Your task to perform on an android device: set default search engine in the chrome app Image 0: 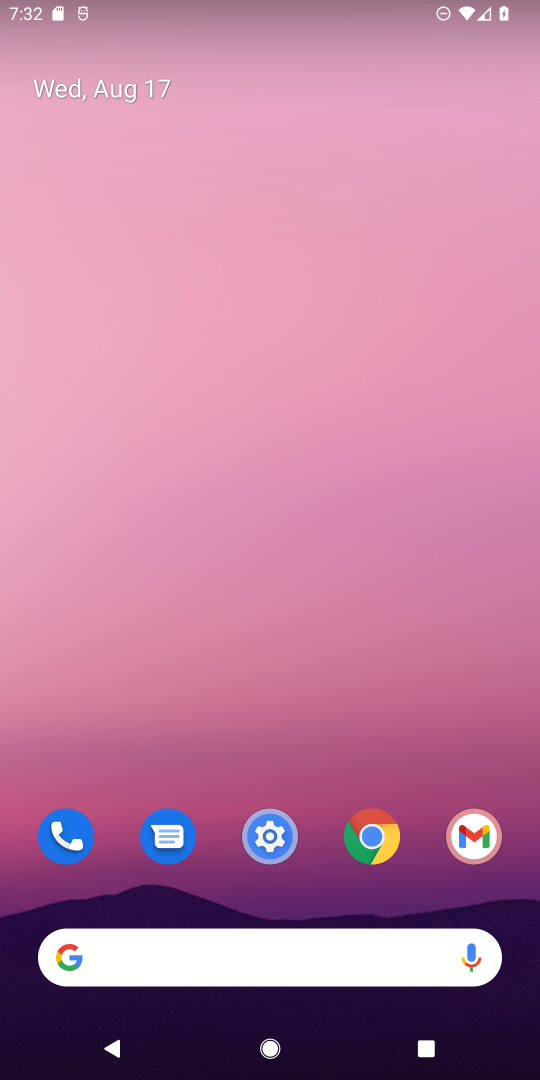
Step 0: drag from (230, 733) to (304, 234)
Your task to perform on an android device: set default search engine in the chrome app Image 1: 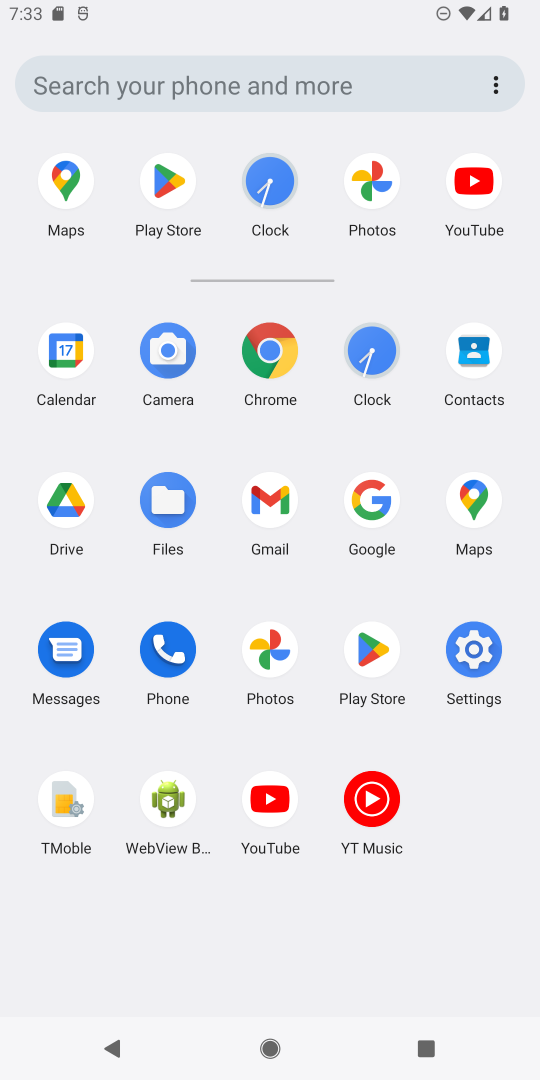
Step 1: click (263, 337)
Your task to perform on an android device: set default search engine in the chrome app Image 2: 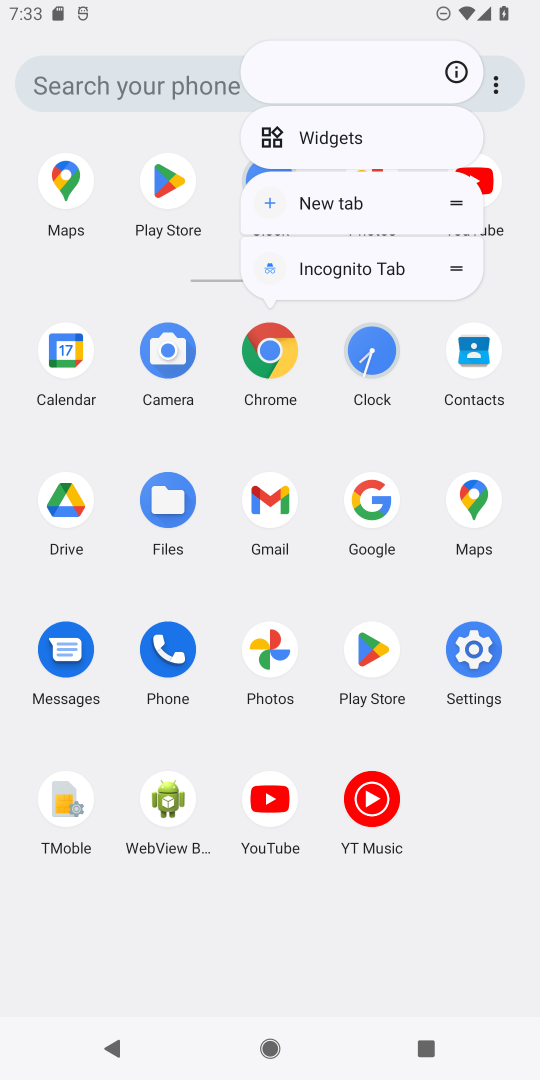
Step 2: click (271, 340)
Your task to perform on an android device: set default search engine in the chrome app Image 3: 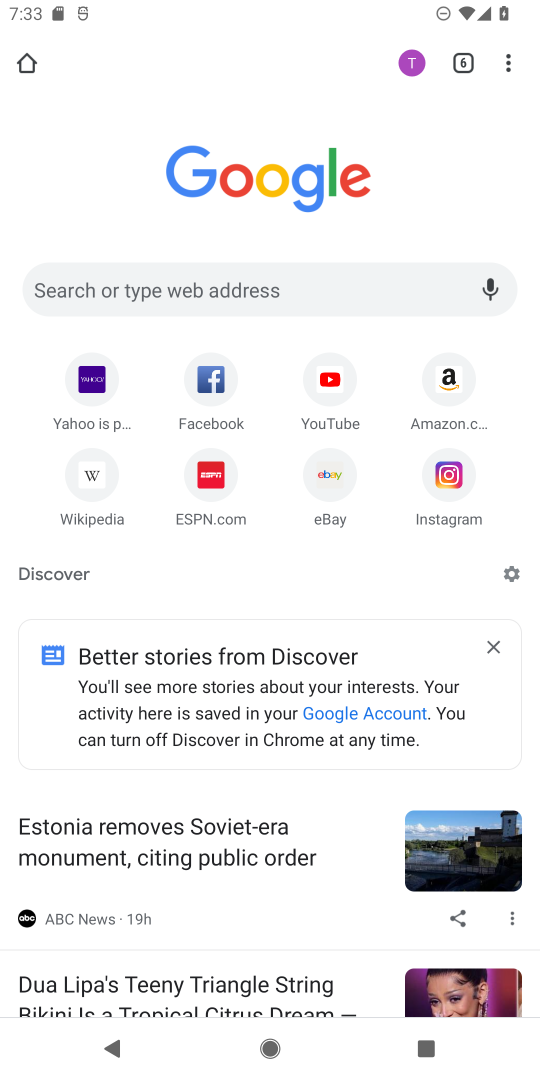
Step 3: click (514, 66)
Your task to perform on an android device: set default search engine in the chrome app Image 4: 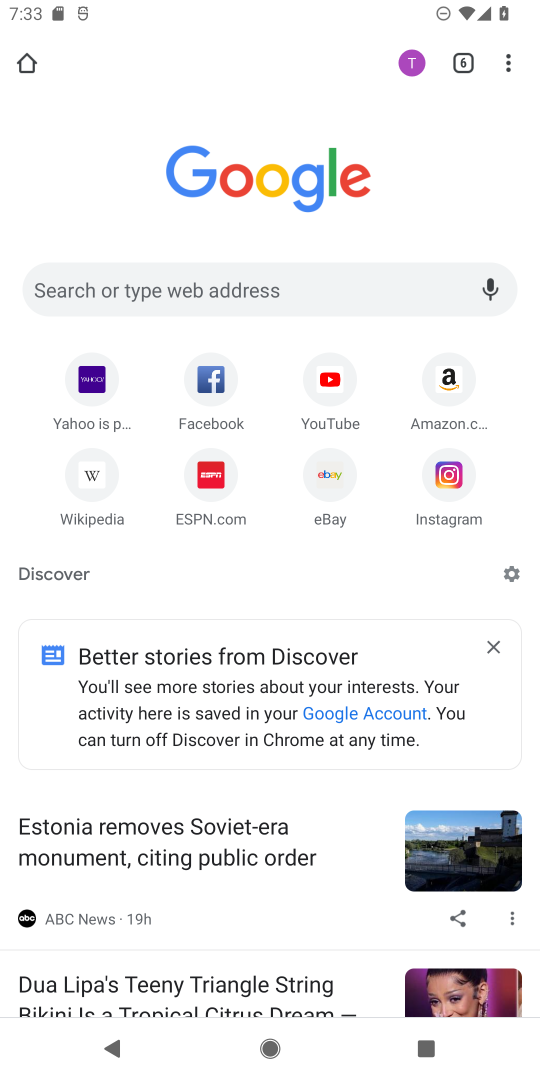
Step 4: click (524, 45)
Your task to perform on an android device: set default search engine in the chrome app Image 5: 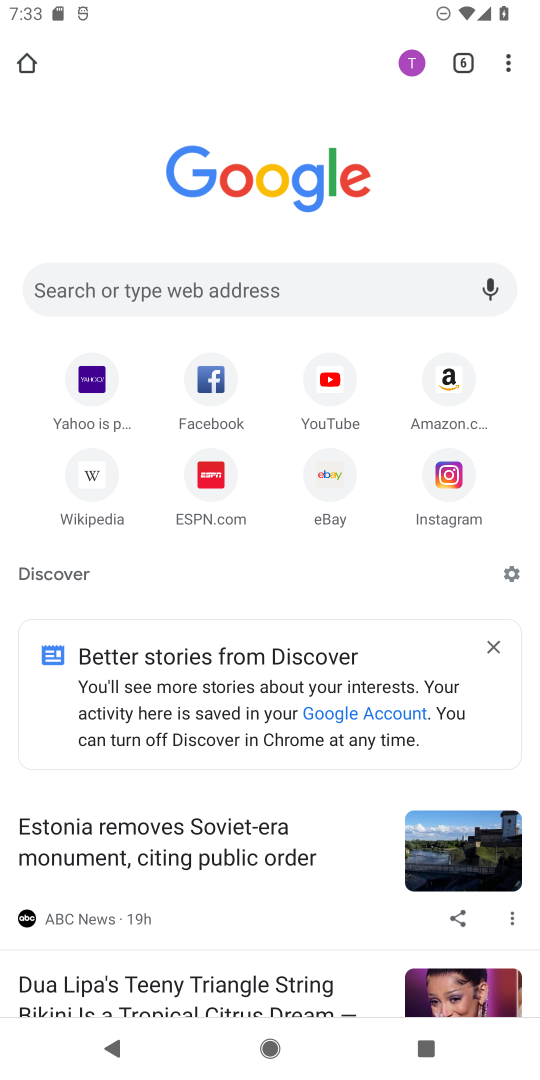
Step 5: click (524, 63)
Your task to perform on an android device: set default search engine in the chrome app Image 6: 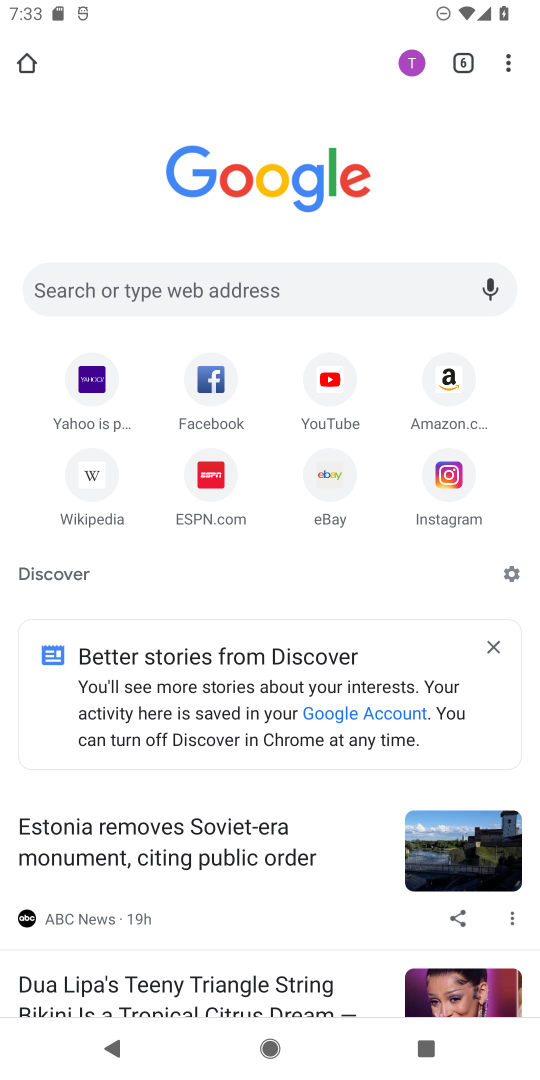
Step 6: click (524, 63)
Your task to perform on an android device: set default search engine in the chrome app Image 7: 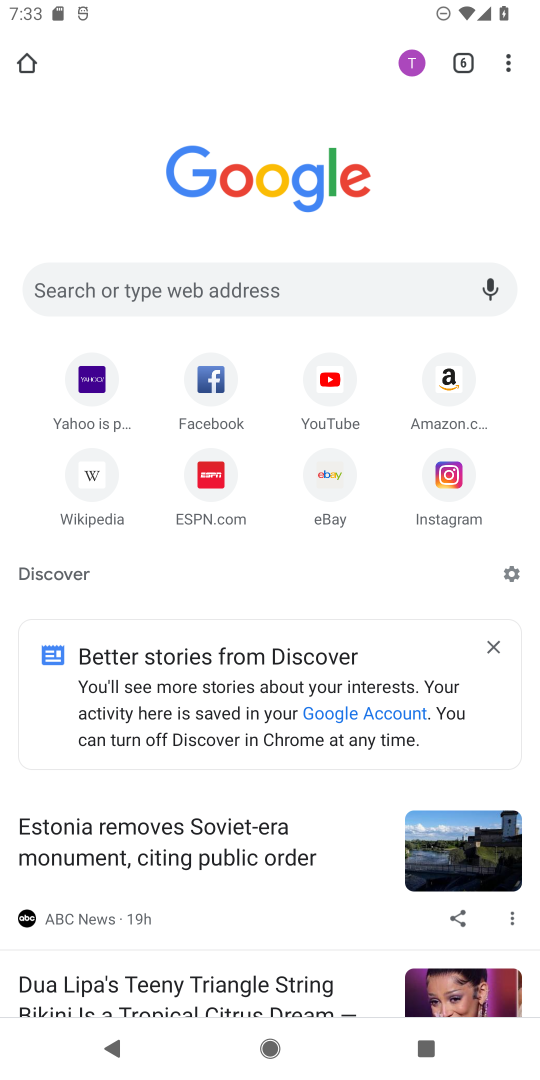
Step 7: click (532, 58)
Your task to perform on an android device: set default search engine in the chrome app Image 8: 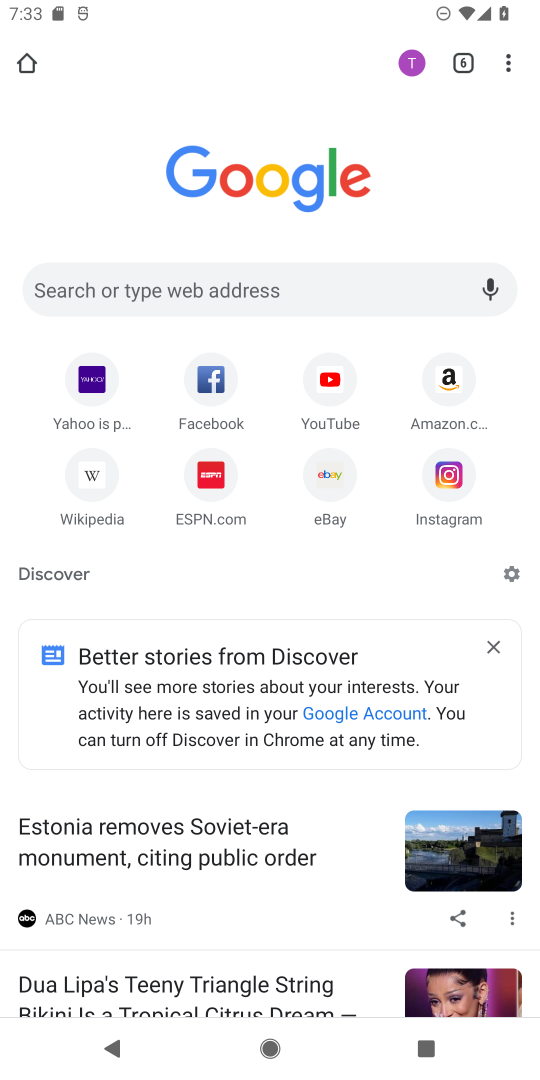
Step 8: click (502, 63)
Your task to perform on an android device: set default search engine in the chrome app Image 9: 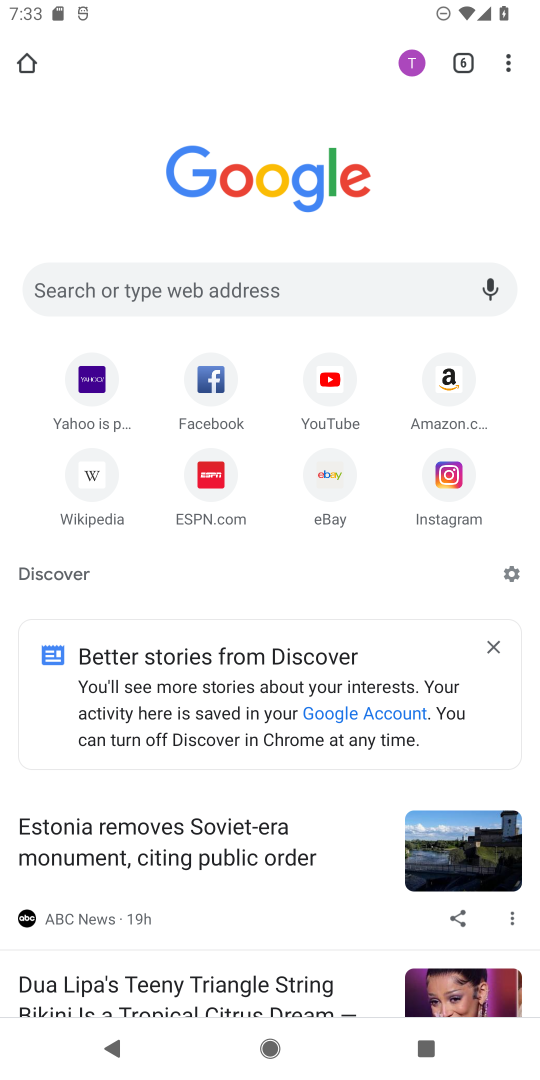
Step 9: click (497, 55)
Your task to perform on an android device: set default search engine in the chrome app Image 10: 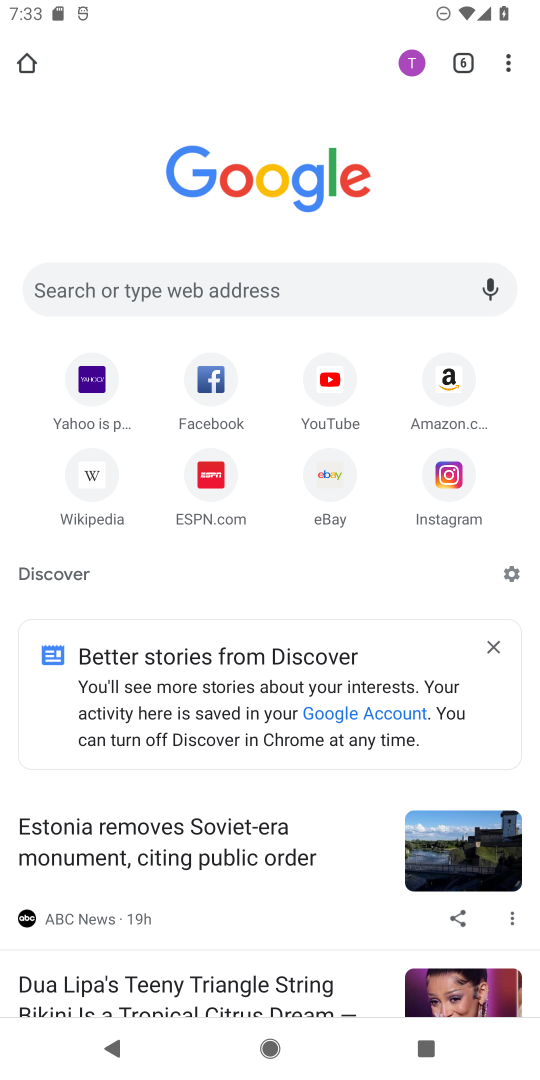
Step 10: click (497, 67)
Your task to perform on an android device: set default search engine in the chrome app Image 11: 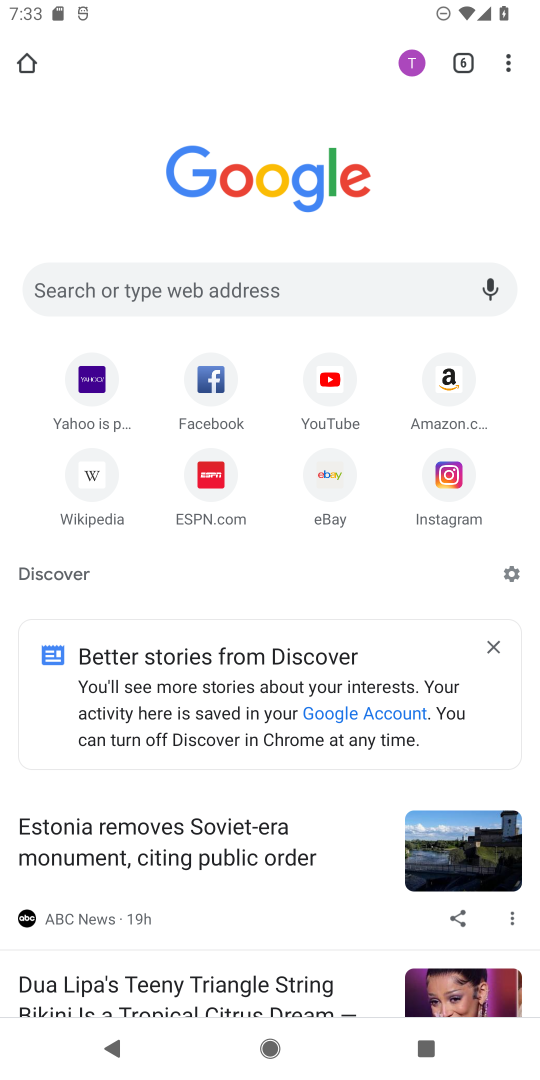
Step 11: click (527, 67)
Your task to perform on an android device: set default search engine in the chrome app Image 12: 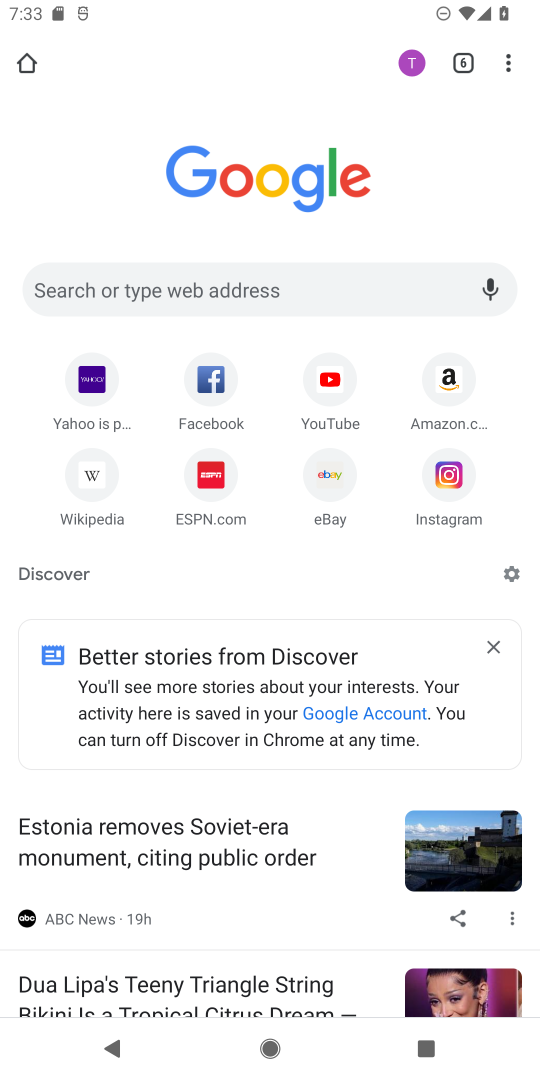
Step 12: click (527, 67)
Your task to perform on an android device: set default search engine in the chrome app Image 13: 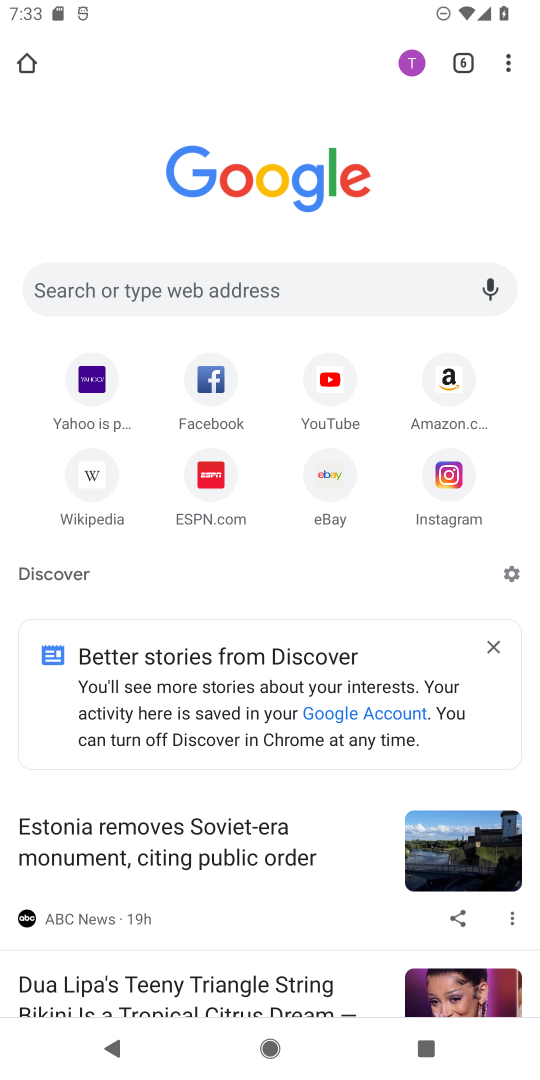
Step 13: click (527, 67)
Your task to perform on an android device: set default search engine in the chrome app Image 14: 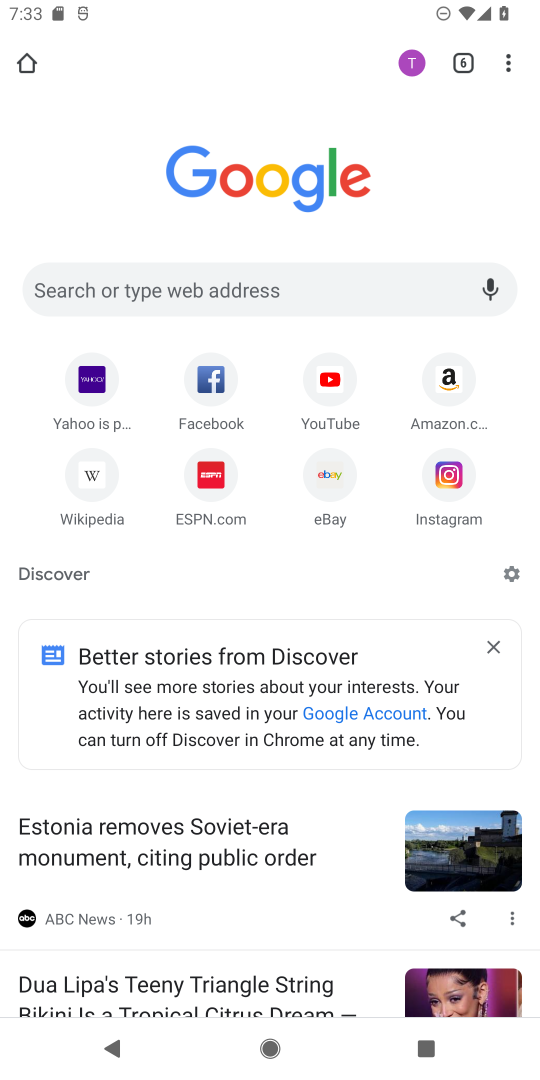
Step 14: click (527, 67)
Your task to perform on an android device: set default search engine in the chrome app Image 15: 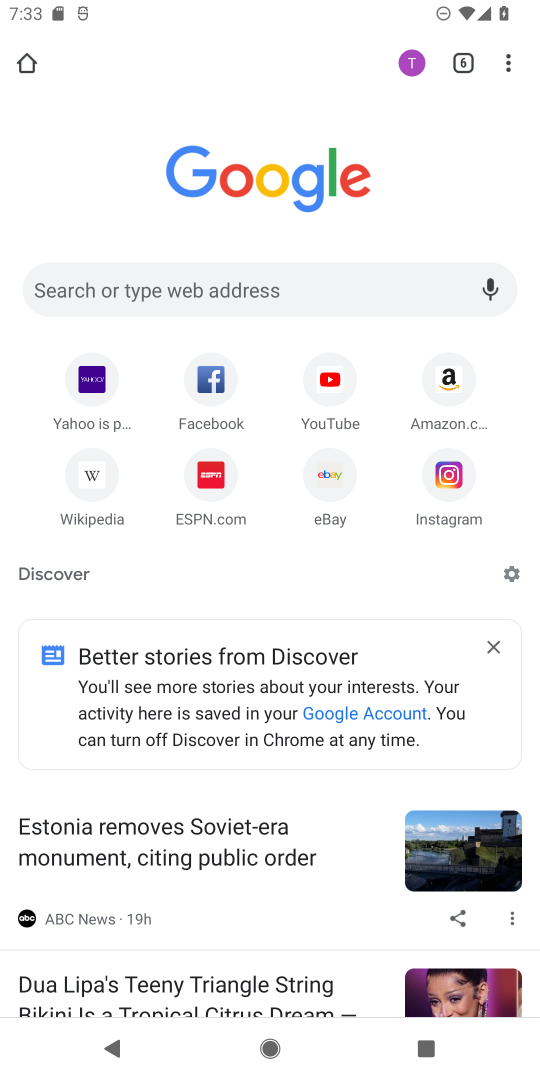
Step 15: click (525, 64)
Your task to perform on an android device: set default search engine in the chrome app Image 16: 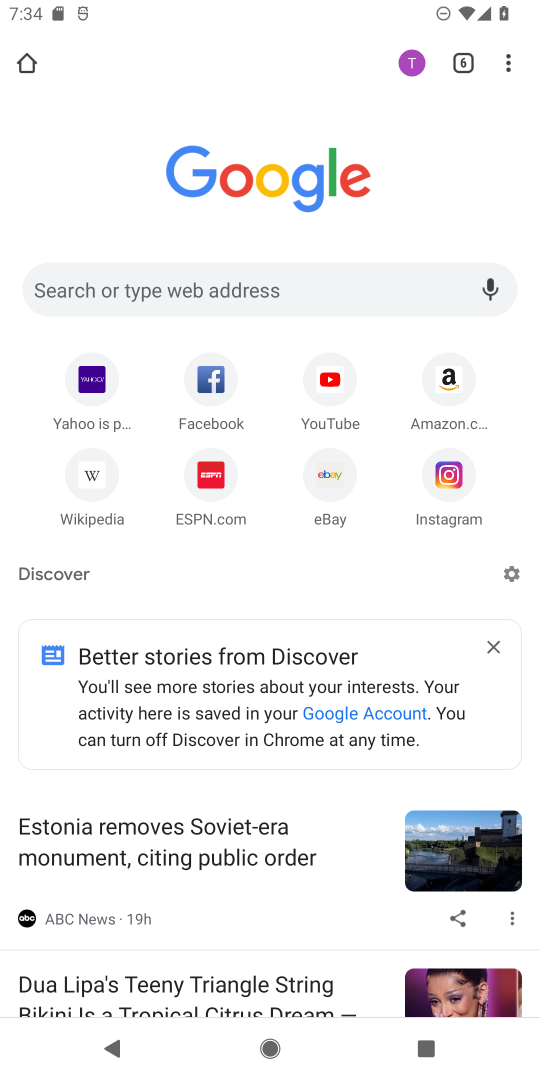
Step 16: click (511, 64)
Your task to perform on an android device: set default search engine in the chrome app Image 17: 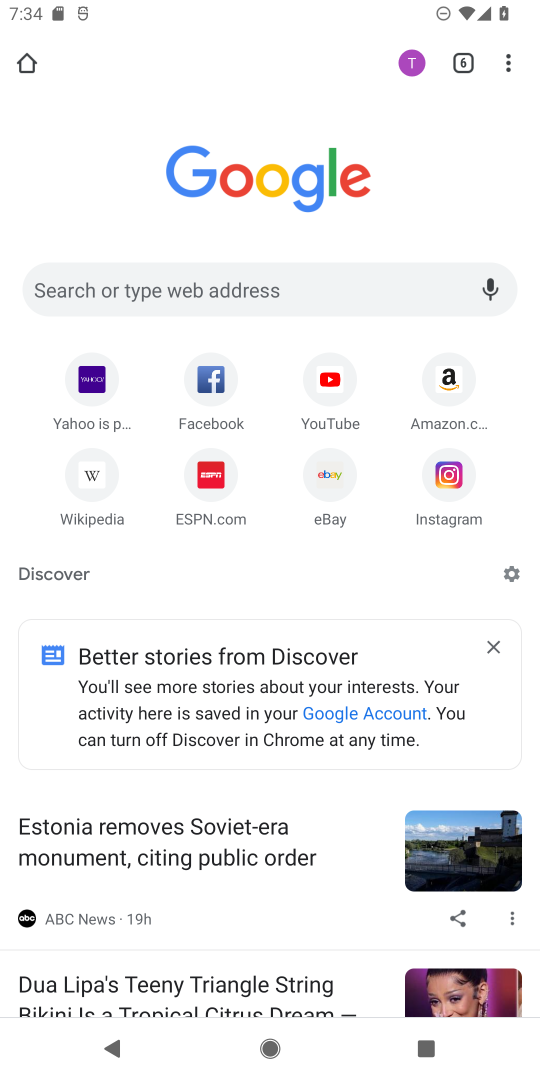
Step 17: click (516, 67)
Your task to perform on an android device: set default search engine in the chrome app Image 18: 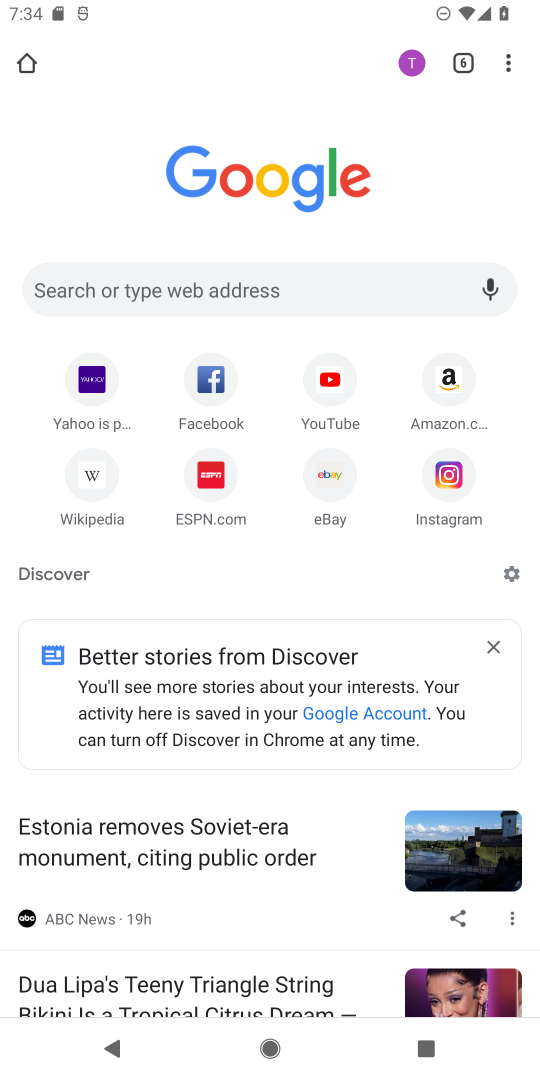
Step 18: click (516, 67)
Your task to perform on an android device: set default search engine in the chrome app Image 19: 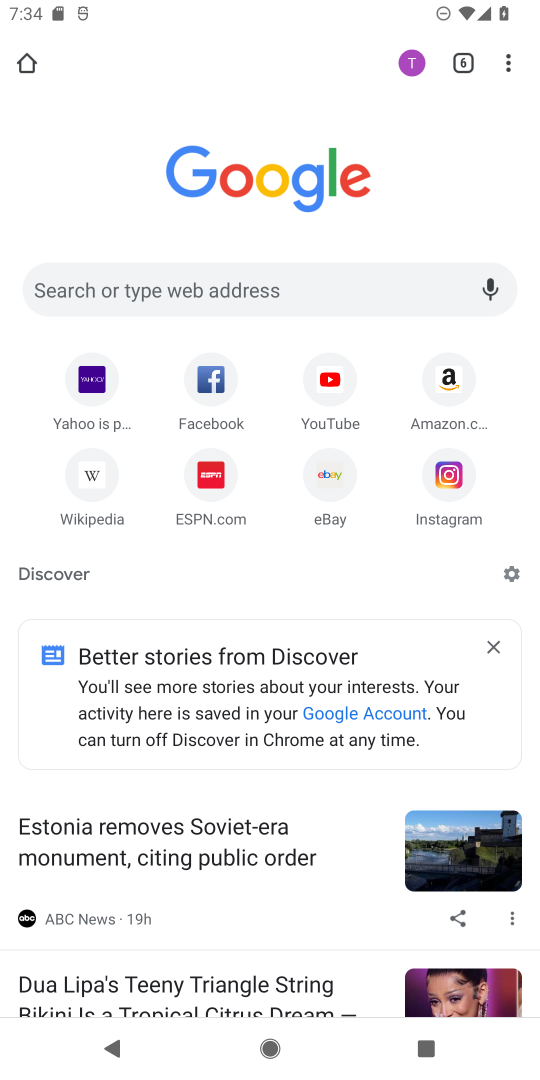
Step 19: click (516, 67)
Your task to perform on an android device: set default search engine in the chrome app Image 20: 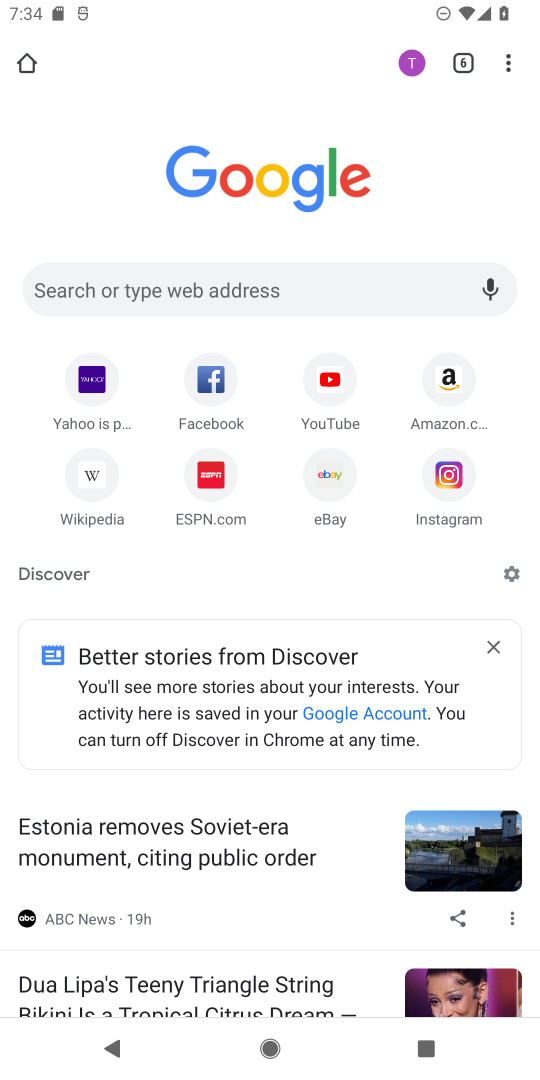
Step 20: click (516, 67)
Your task to perform on an android device: set default search engine in the chrome app Image 21: 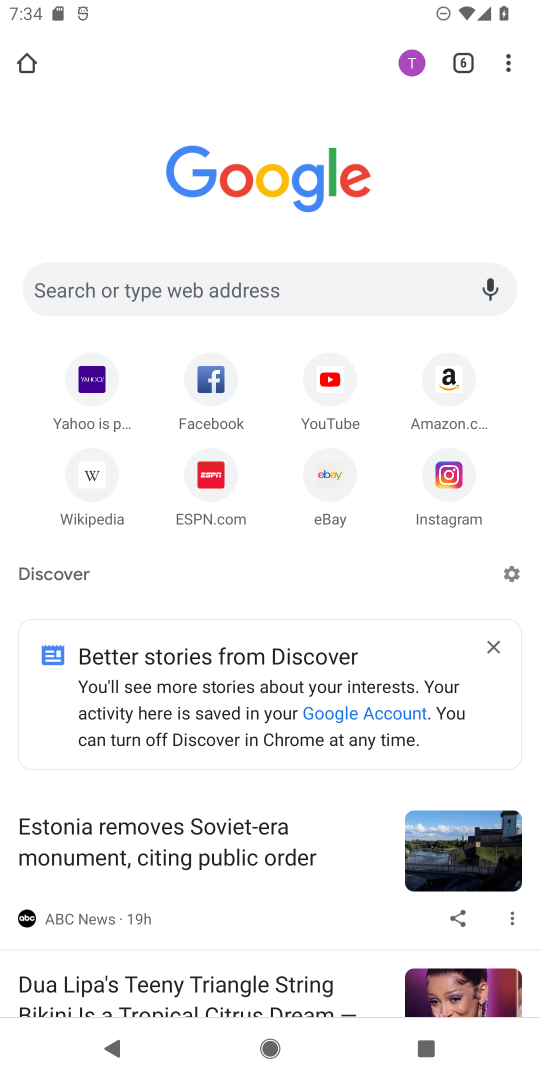
Step 21: click (516, 67)
Your task to perform on an android device: set default search engine in the chrome app Image 22: 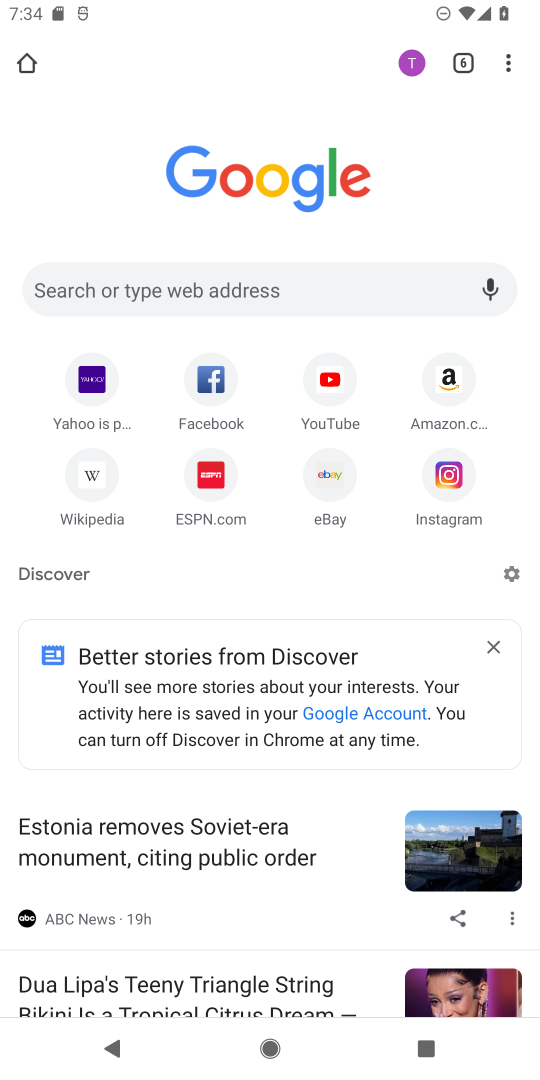
Step 22: click (524, 48)
Your task to perform on an android device: set default search engine in the chrome app Image 23: 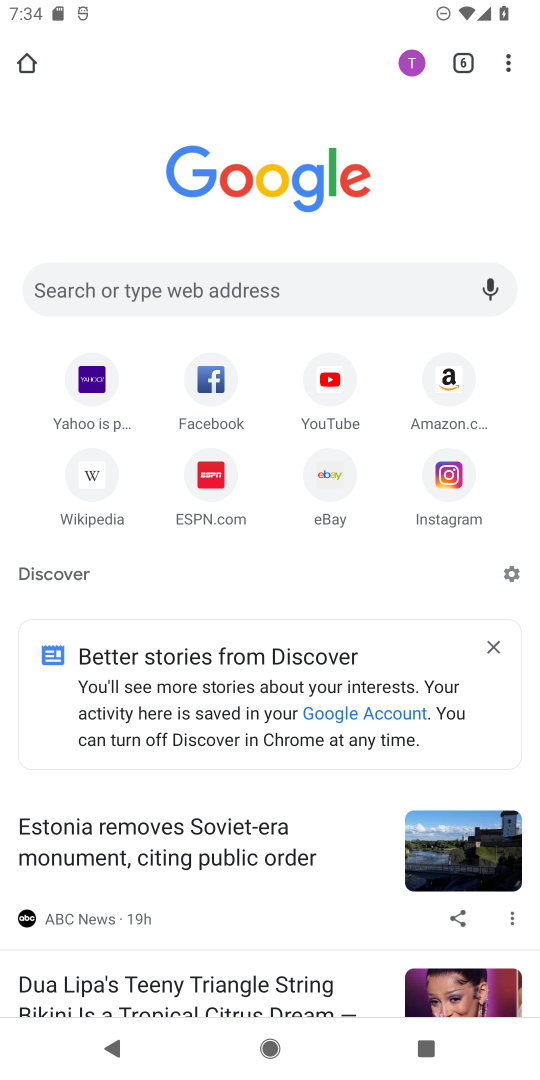
Step 23: click (524, 56)
Your task to perform on an android device: set default search engine in the chrome app Image 24: 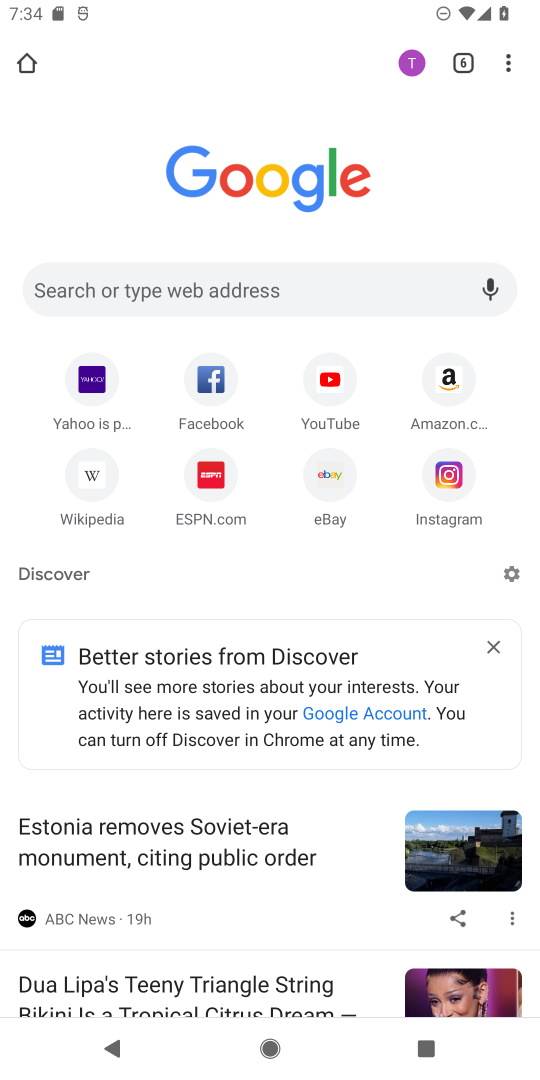
Step 24: click (524, 56)
Your task to perform on an android device: set default search engine in the chrome app Image 25: 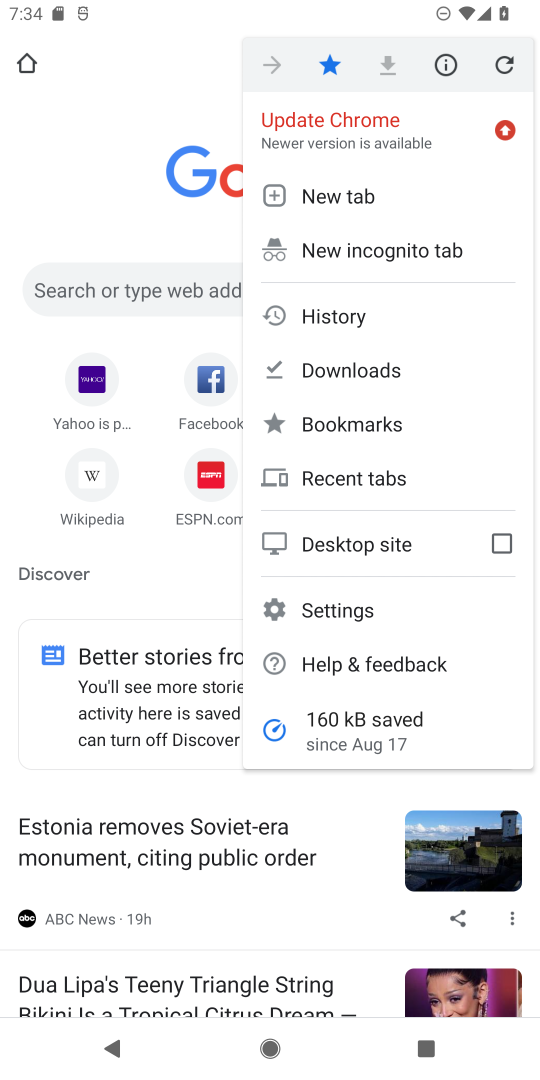
Step 25: click (352, 602)
Your task to perform on an android device: set default search engine in the chrome app Image 26: 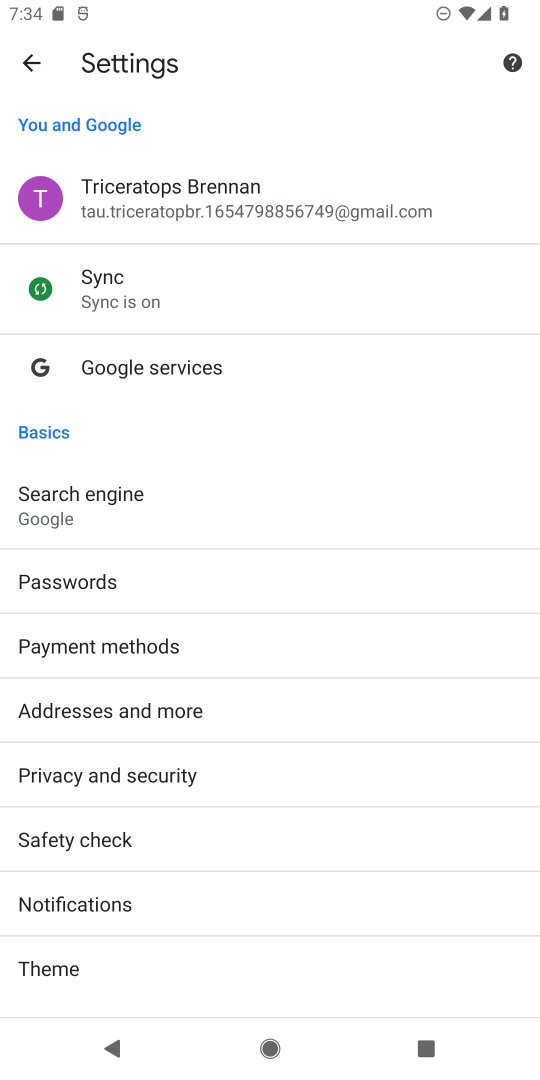
Step 26: click (94, 504)
Your task to perform on an android device: set default search engine in the chrome app Image 27: 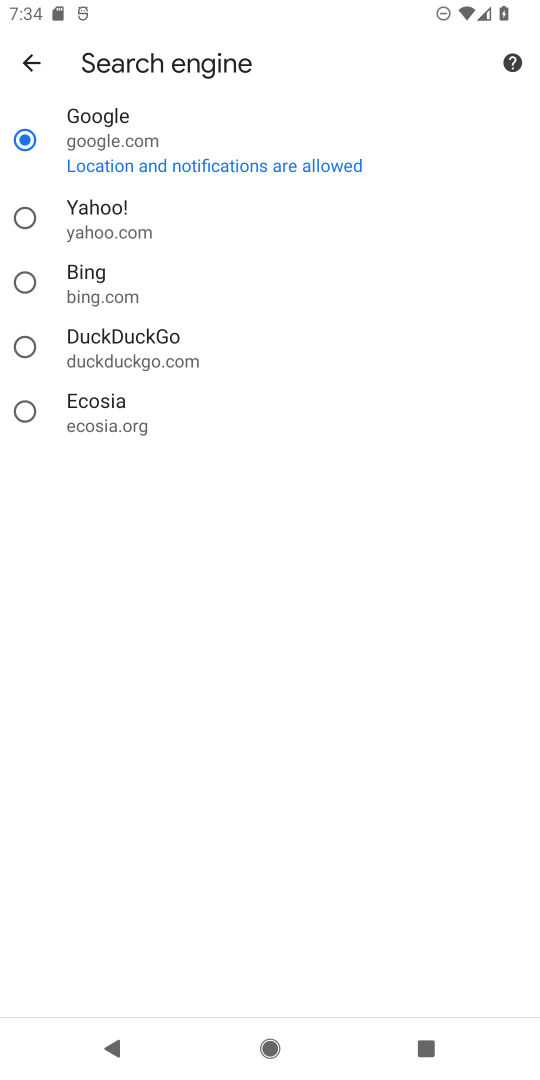
Step 27: click (74, 261)
Your task to perform on an android device: set default search engine in the chrome app Image 28: 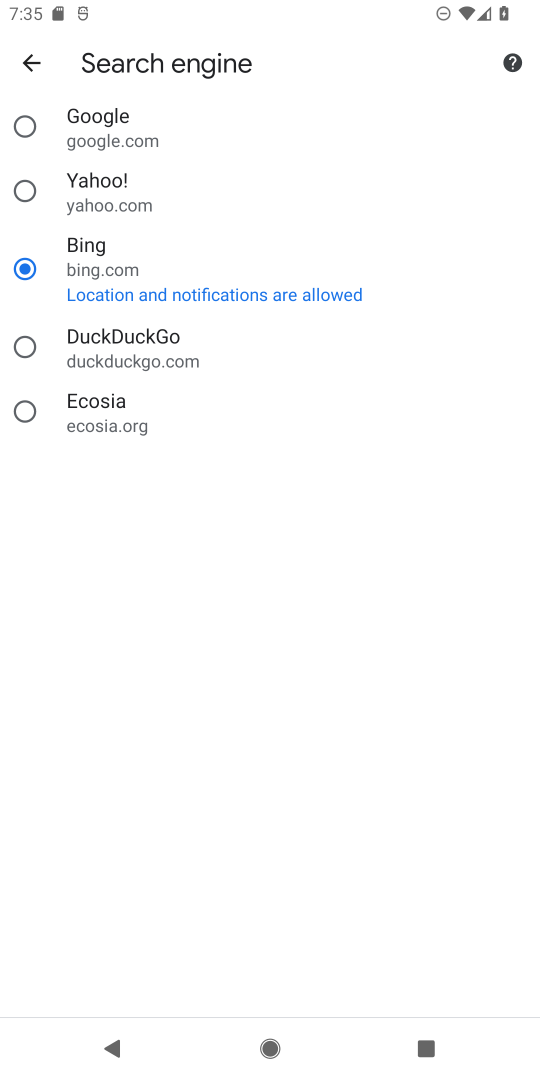
Step 28: click (90, 180)
Your task to perform on an android device: set default search engine in the chrome app Image 29: 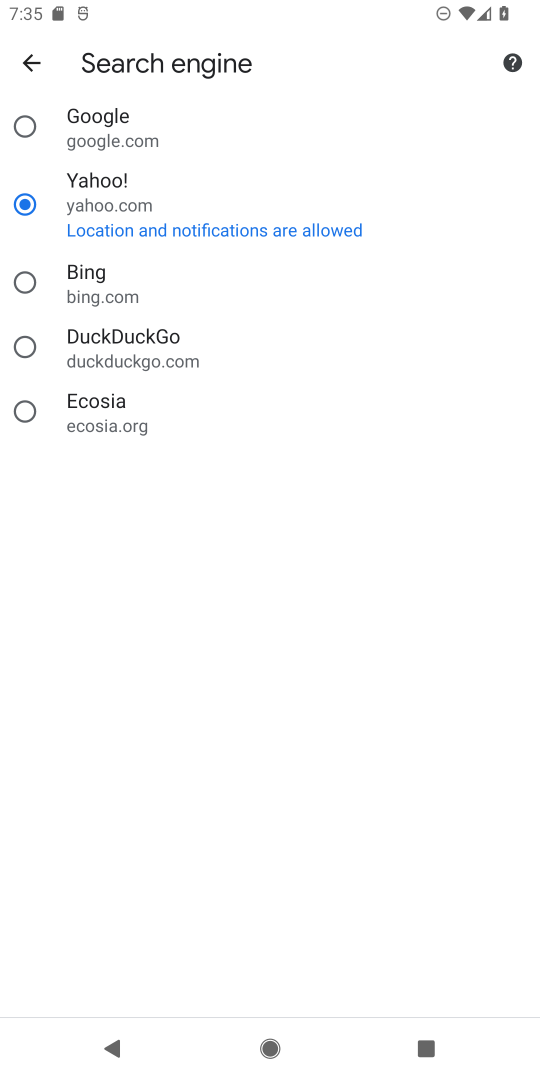
Step 29: task complete